Your task to perform on an android device: open app "Google Sheets" Image 0: 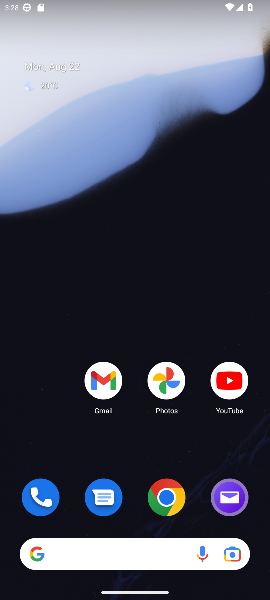
Step 0: press home button
Your task to perform on an android device: open app "Google Sheets" Image 1: 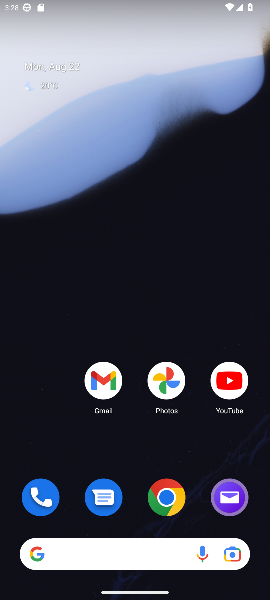
Step 1: drag from (61, 452) to (93, 165)
Your task to perform on an android device: open app "Google Sheets" Image 2: 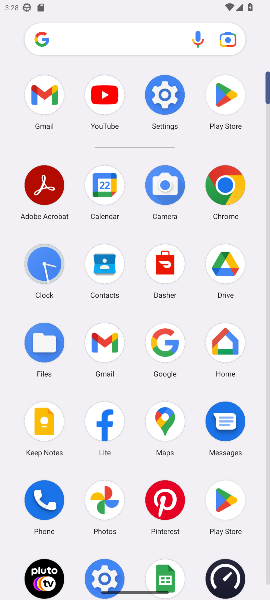
Step 2: click (227, 90)
Your task to perform on an android device: open app "Google Sheets" Image 3: 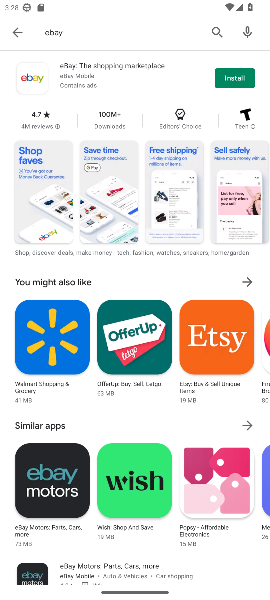
Step 3: press back button
Your task to perform on an android device: open app "Google Sheets" Image 4: 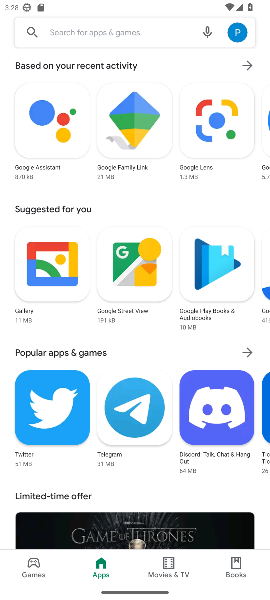
Step 4: click (153, 27)
Your task to perform on an android device: open app "Google Sheets" Image 5: 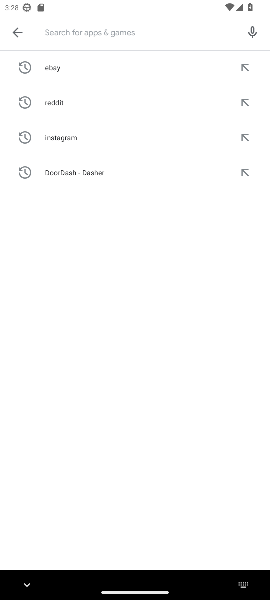
Step 5: type "google sheets"
Your task to perform on an android device: open app "Google Sheets" Image 6: 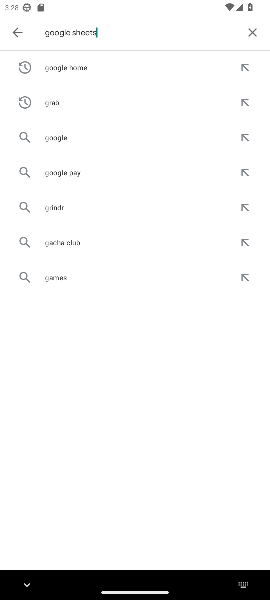
Step 6: press enter
Your task to perform on an android device: open app "Google Sheets" Image 7: 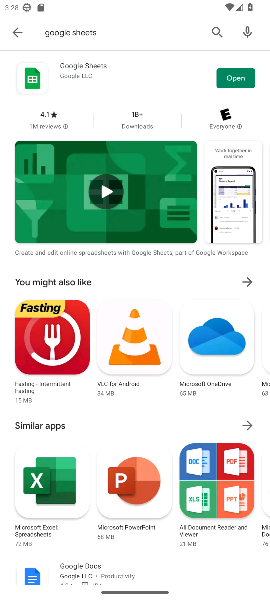
Step 7: click (240, 77)
Your task to perform on an android device: open app "Google Sheets" Image 8: 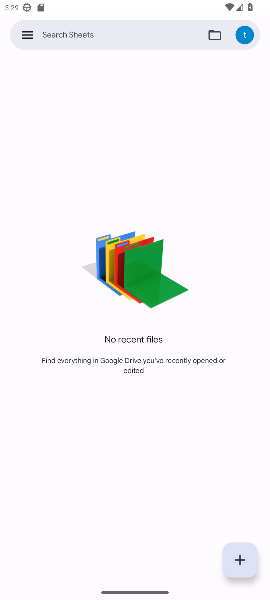
Step 8: task complete